Your task to perform on an android device: open app "LiveIn - Share Your Moment" (install if not already installed), go to login, and select forgot password Image 0: 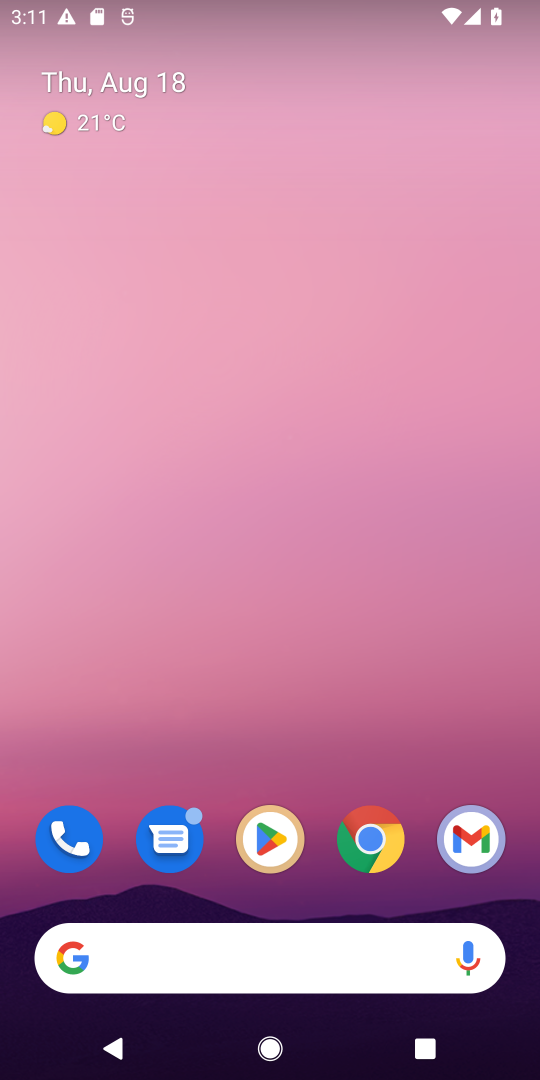
Step 0: click (273, 847)
Your task to perform on an android device: open app "LiveIn - Share Your Moment" (install if not already installed), go to login, and select forgot password Image 1: 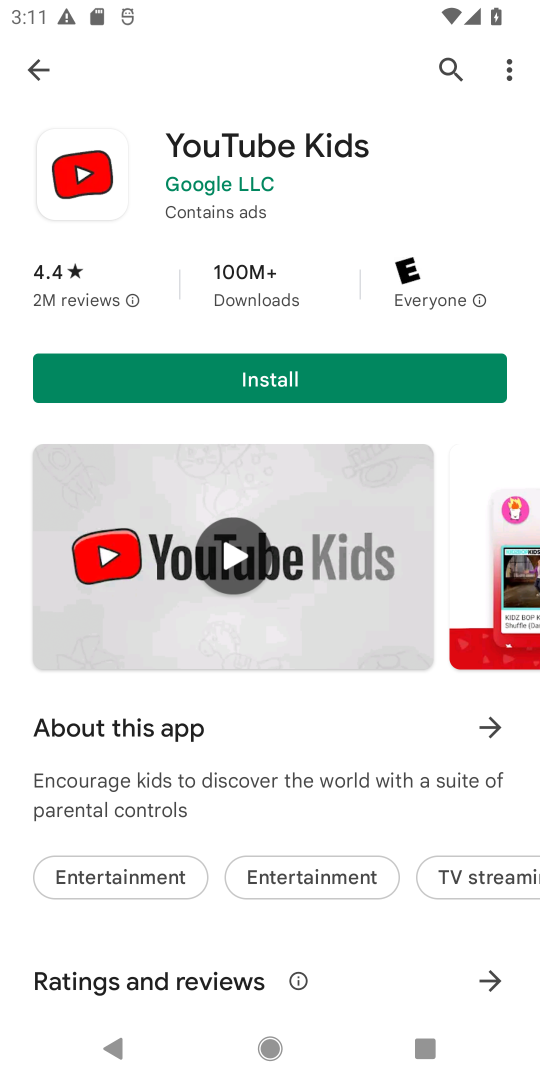
Step 1: click (29, 72)
Your task to perform on an android device: open app "LiveIn - Share Your Moment" (install if not already installed), go to login, and select forgot password Image 2: 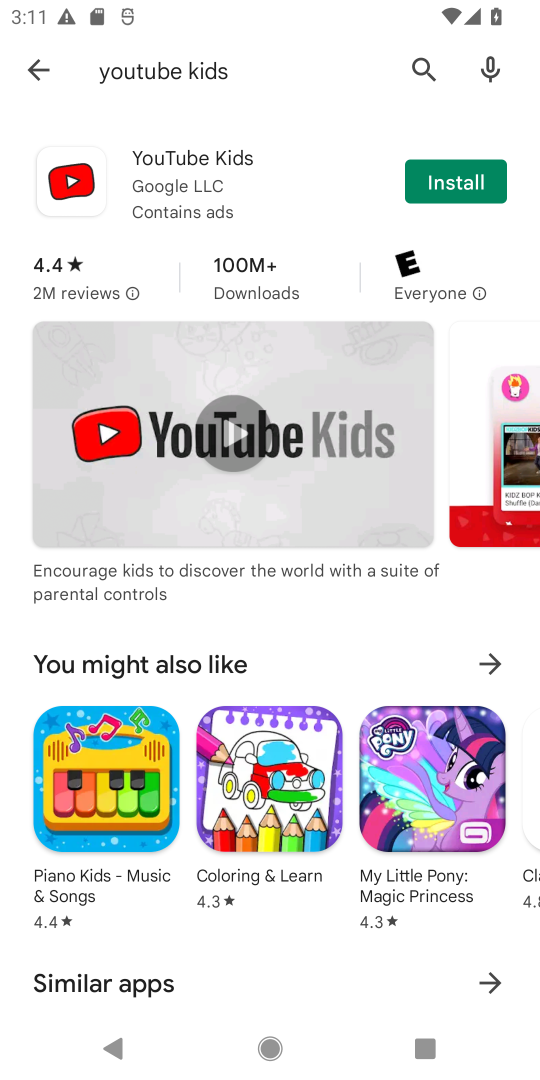
Step 2: click (40, 51)
Your task to perform on an android device: open app "LiveIn - Share Your Moment" (install if not already installed), go to login, and select forgot password Image 3: 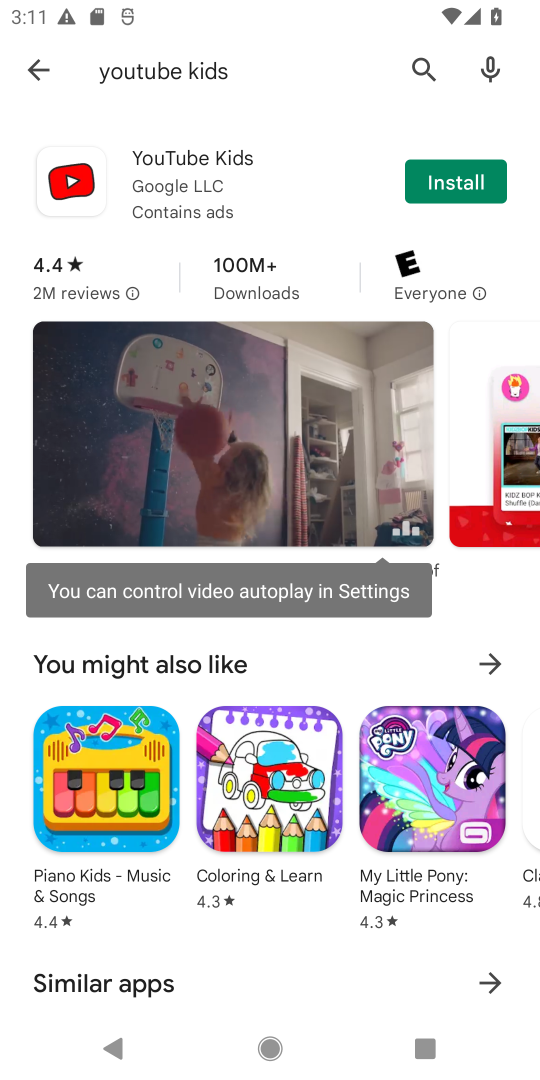
Step 3: click (29, 66)
Your task to perform on an android device: open app "LiveIn - Share Your Moment" (install if not already installed), go to login, and select forgot password Image 4: 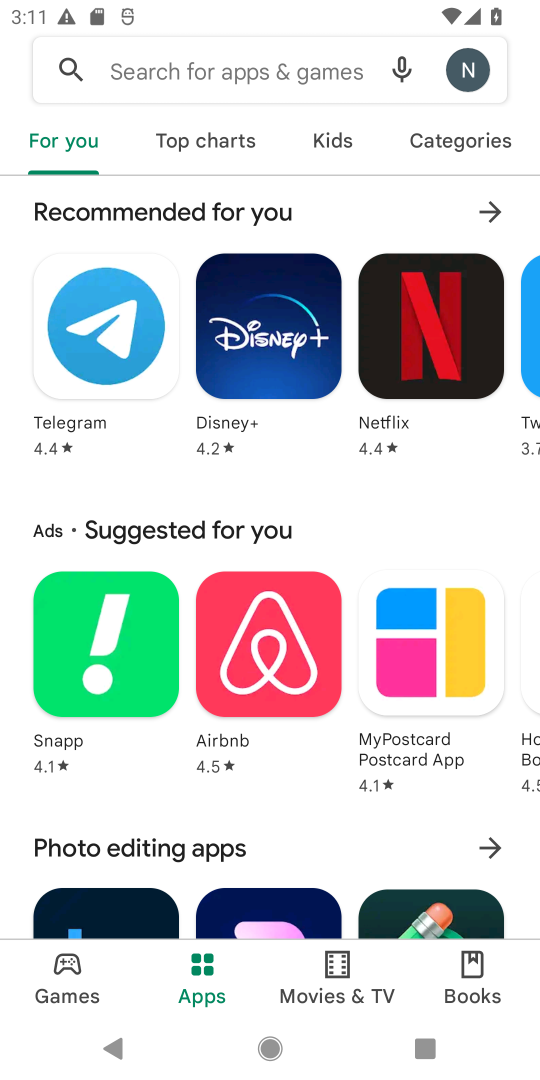
Step 4: click (161, 77)
Your task to perform on an android device: open app "LiveIn - Share Your Moment" (install if not already installed), go to login, and select forgot password Image 5: 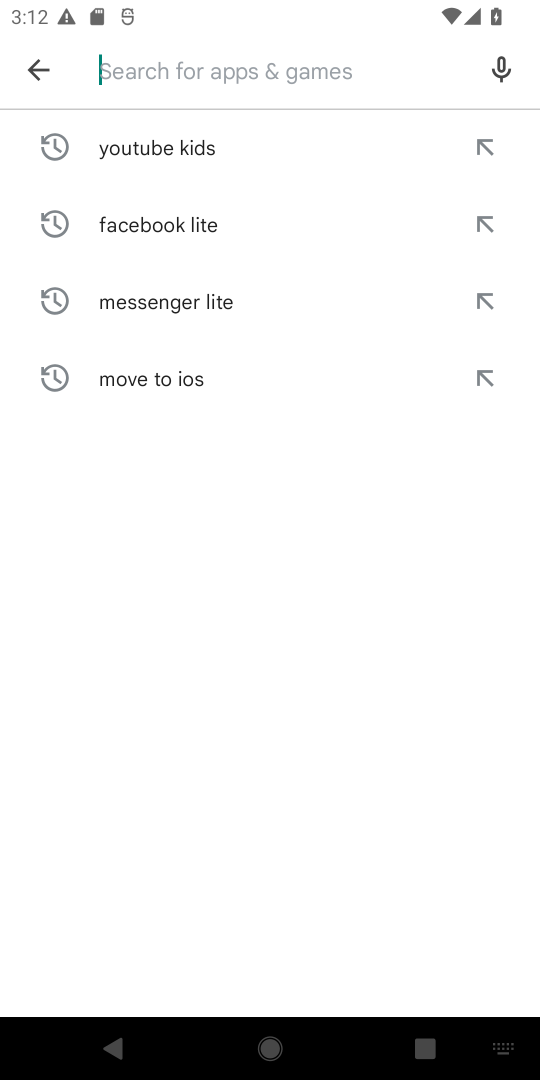
Step 5: type "LiveIn - Share Your Moment"
Your task to perform on an android device: open app "LiveIn - Share Your Moment" (install if not already installed), go to login, and select forgot password Image 6: 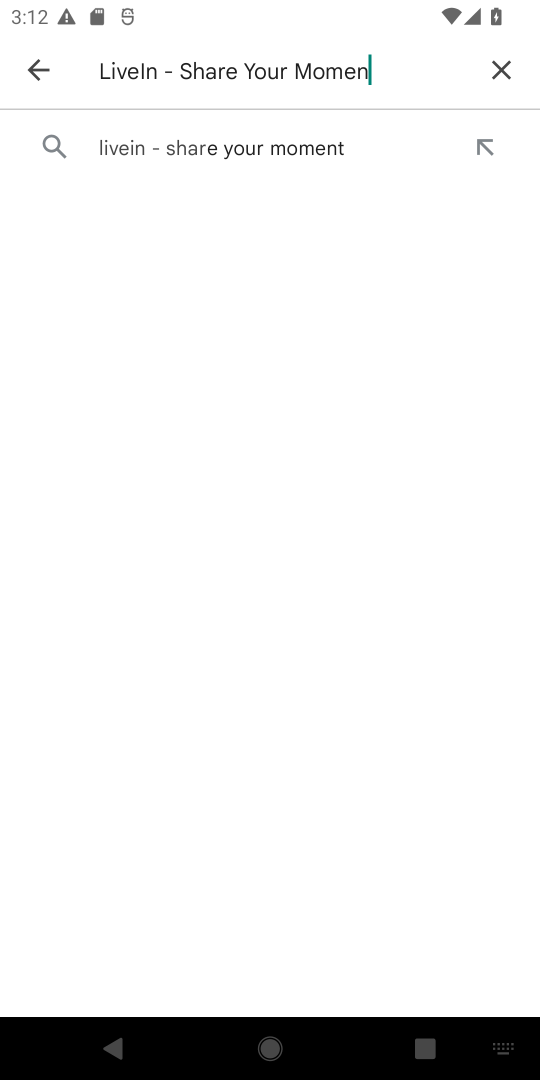
Step 6: type ""
Your task to perform on an android device: open app "LiveIn - Share Your Moment" (install if not already installed), go to login, and select forgot password Image 7: 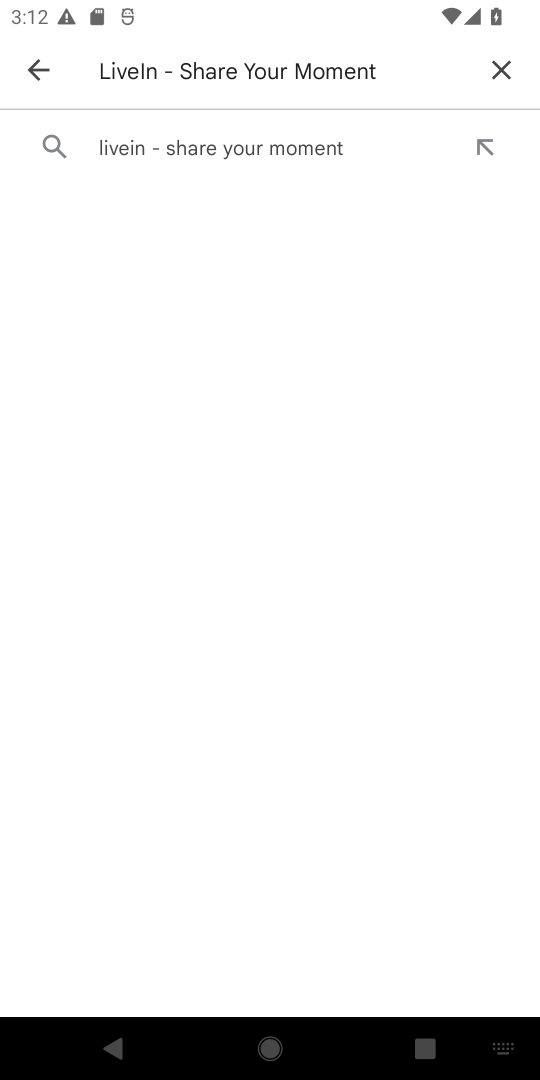
Step 7: click (75, 150)
Your task to perform on an android device: open app "LiveIn - Share Your Moment" (install if not already installed), go to login, and select forgot password Image 8: 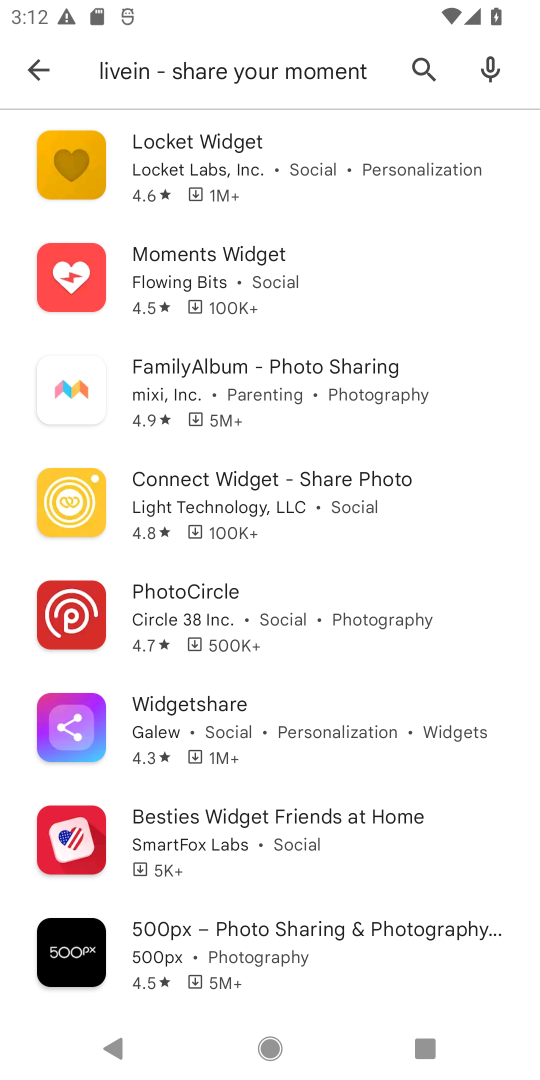
Step 8: task complete